Your task to perform on an android device: Clear the cart on target. Search for apple airpods on target, select the first entry, and add it to the cart. Image 0: 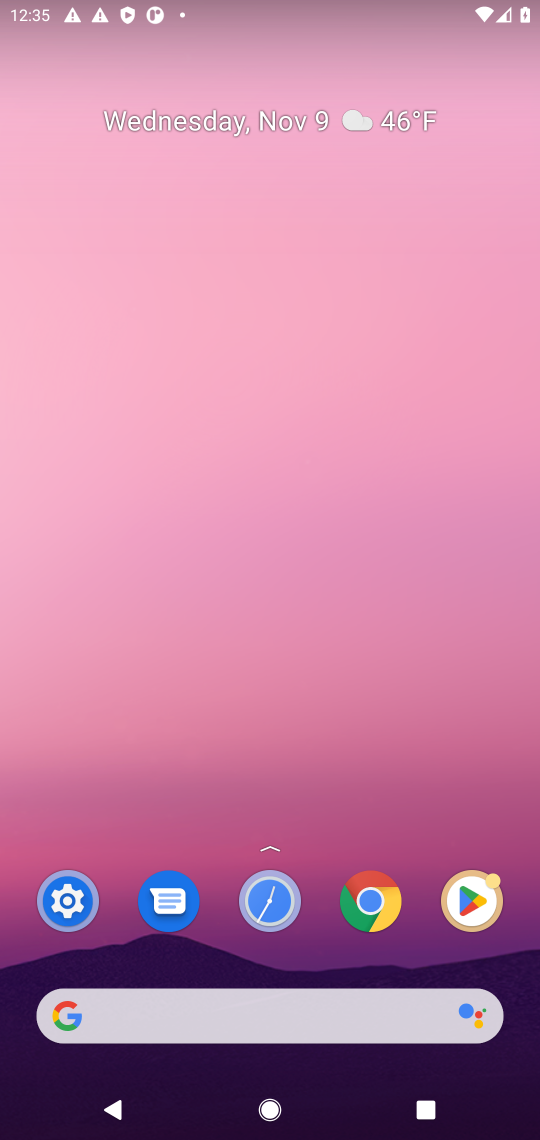
Step 0: click (372, 903)
Your task to perform on an android device: Clear the cart on target. Search for apple airpods on target, select the first entry, and add it to the cart. Image 1: 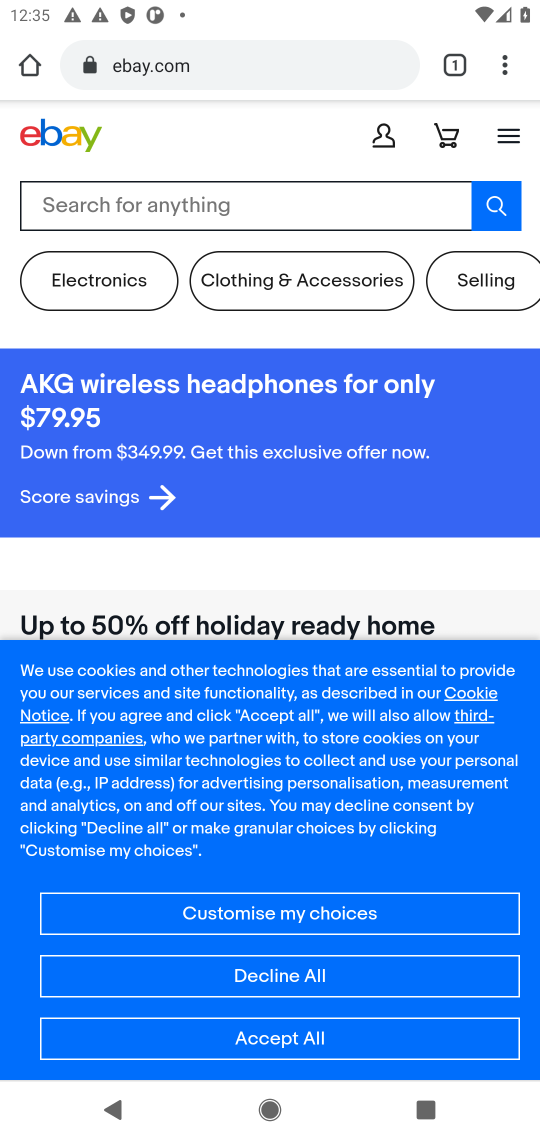
Step 1: click (240, 64)
Your task to perform on an android device: Clear the cart on target. Search for apple airpods on target, select the first entry, and add it to the cart. Image 2: 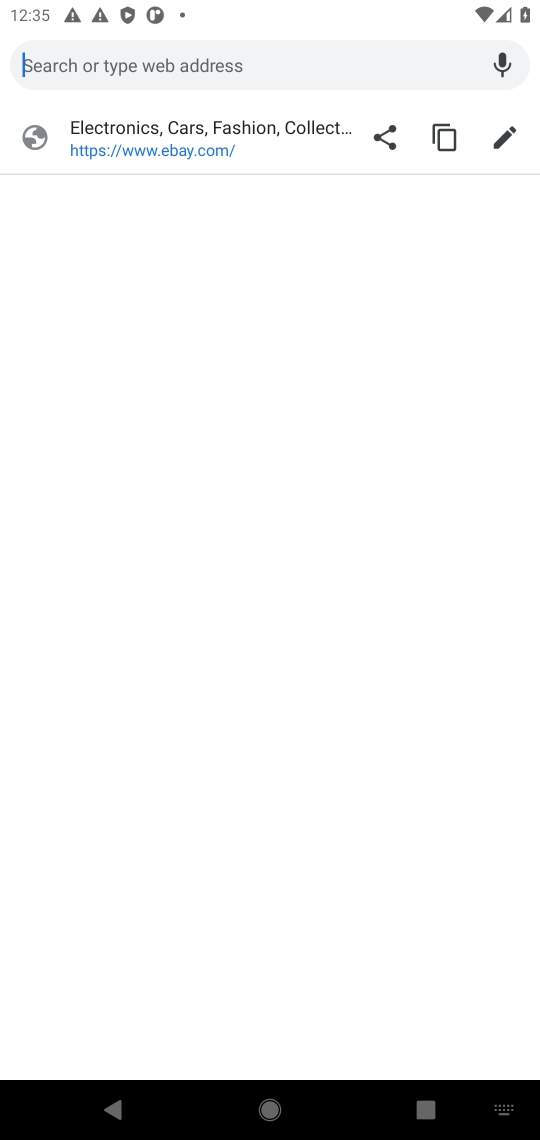
Step 2: type "target"
Your task to perform on an android device: Clear the cart on target. Search for apple airpods on target, select the first entry, and add it to the cart. Image 3: 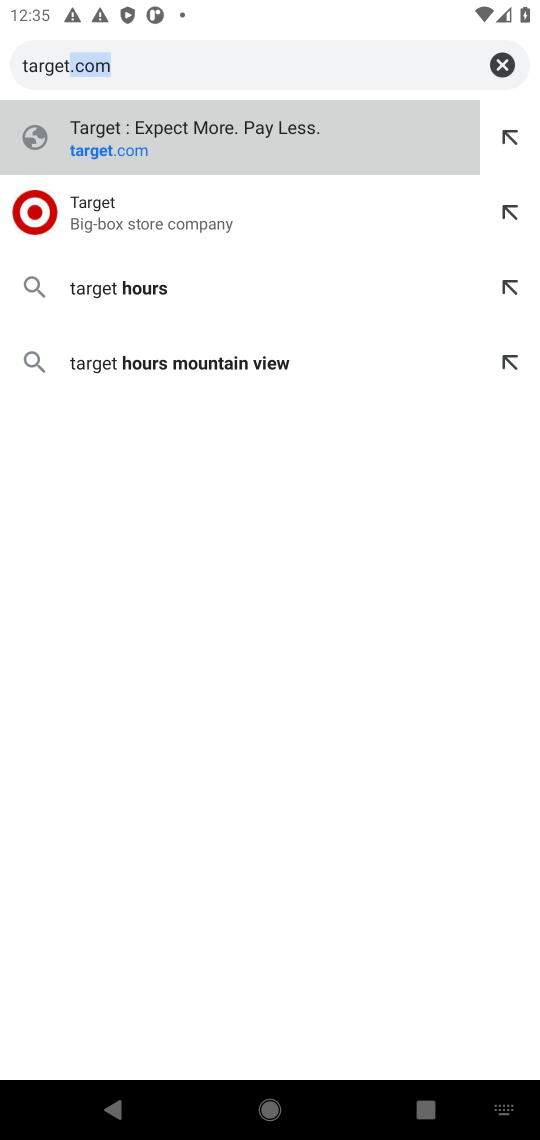
Step 3: click (163, 226)
Your task to perform on an android device: Clear the cart on target. Search for apple airpods on target, select the first entry, and add it to the cart. Image 4: 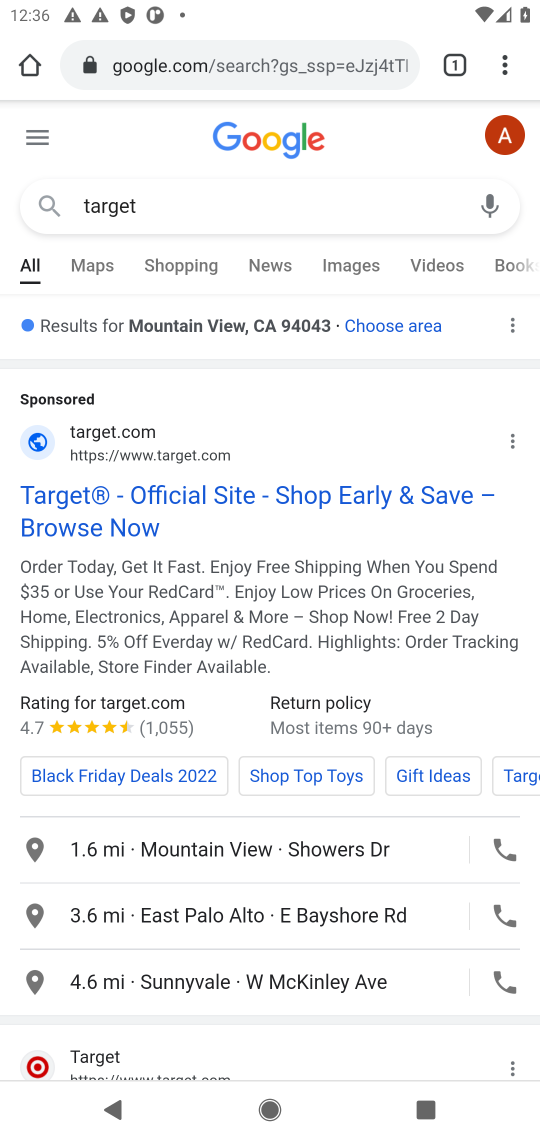
Step 4: click (202, 452)
Your task to perform on an android device: Clear the cart on target. Search for apple airpods on target, select the first entry, and add it to the cart. Image 5: 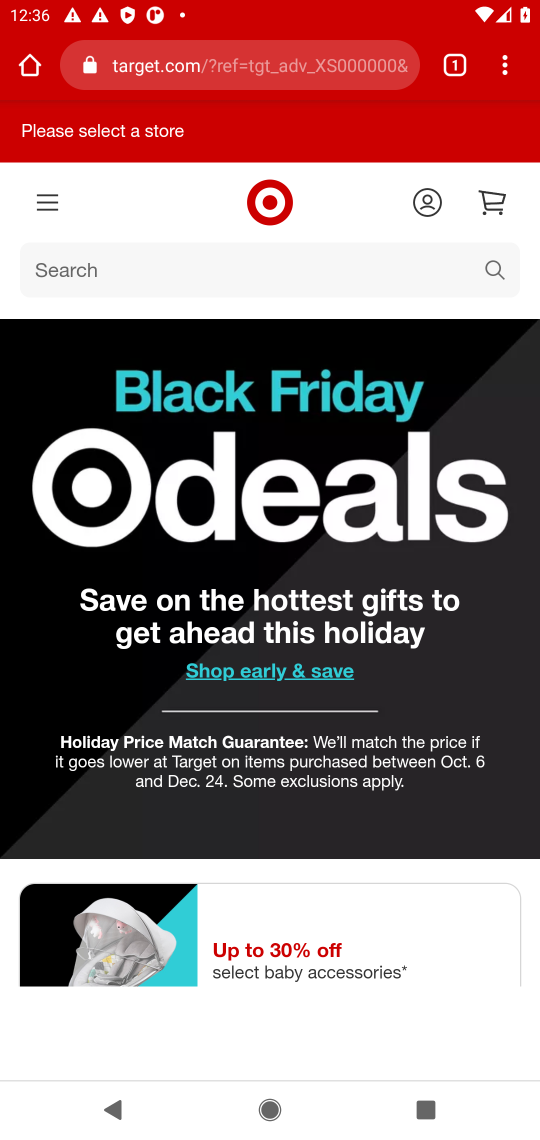
Step 5: click (372, 276)
Your task to perform on an android device: Clear the cart on target. Search for apple airpods on target, select the first entry, and add it to the cart. Image 6: 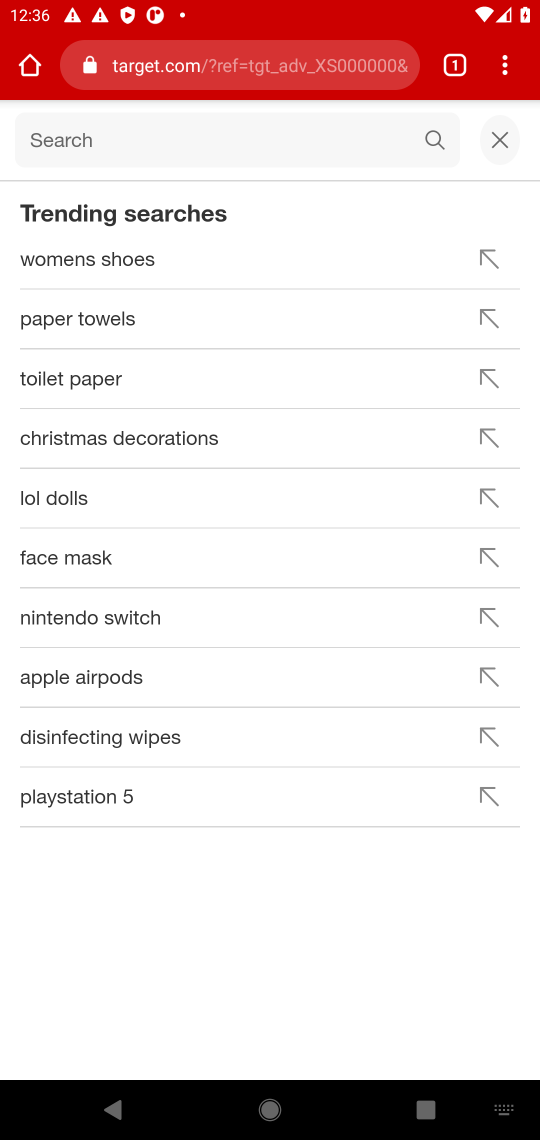
Step 6: type "apple airpods "
Your task to perform on an android device: Clear the cart on target. Search for apple airpods on target, select the first entry, and add it to the cart. Image 7: 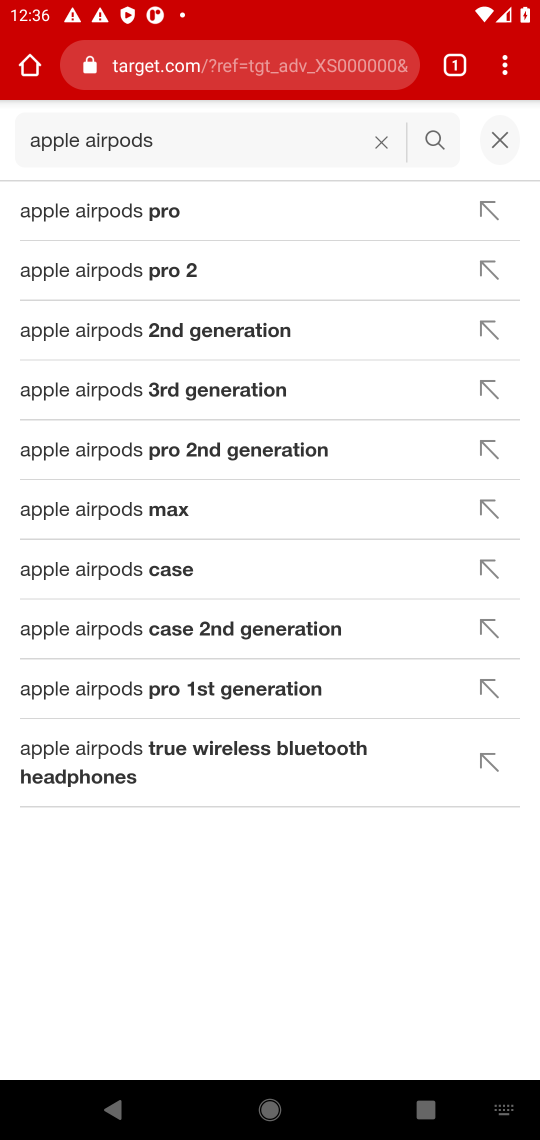
Step 7: click (156, 207)
Your task to perform on an android device: Clear the cart on target. Search for apple airpods on target, select the first entry, and add it to the cart. Image 8: 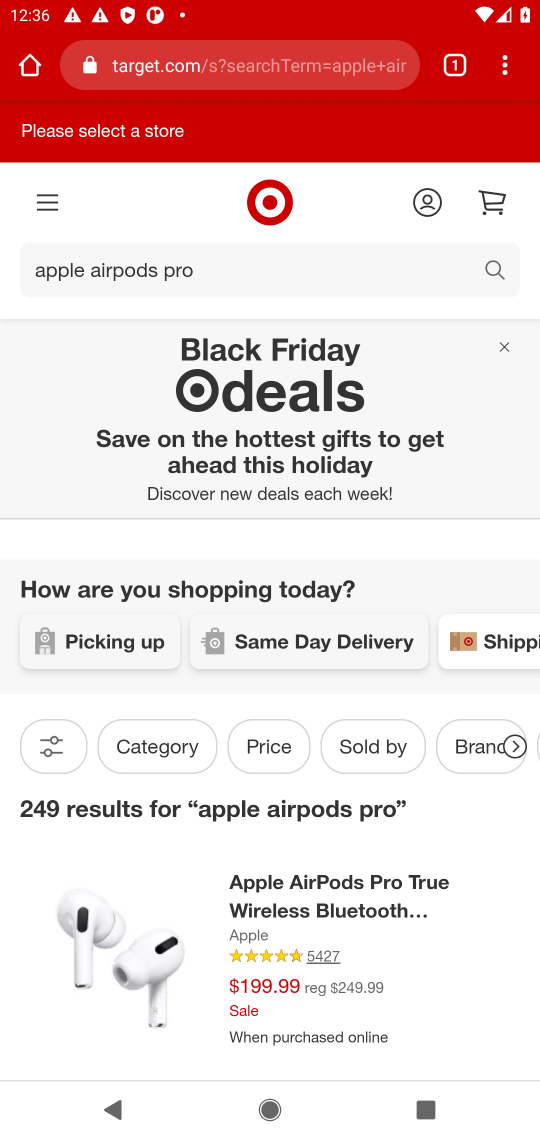
Step 8: click (374, 890)
Your task to perform on an android device: Clear the cart on target. Search for apple airpods on target, select the first entry, and add it to the cart. Image 9: 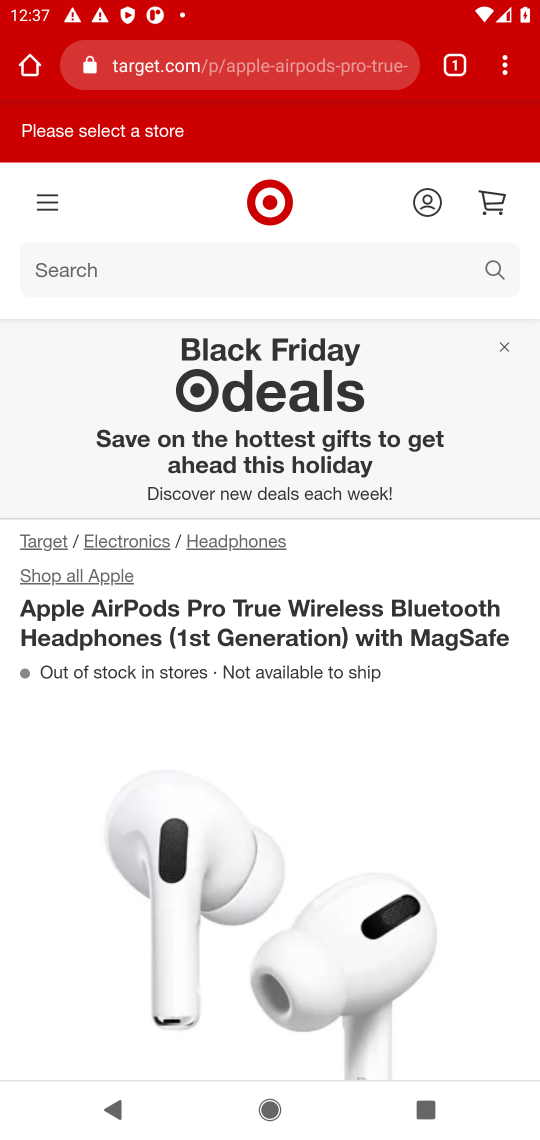
Step 9: drag from (513, 1018) to (472, 268)
Your task to perform on an android device: Clear the cart on target. Search for apple airpods on target, select the first entry, and add it to the cart. Image 10: 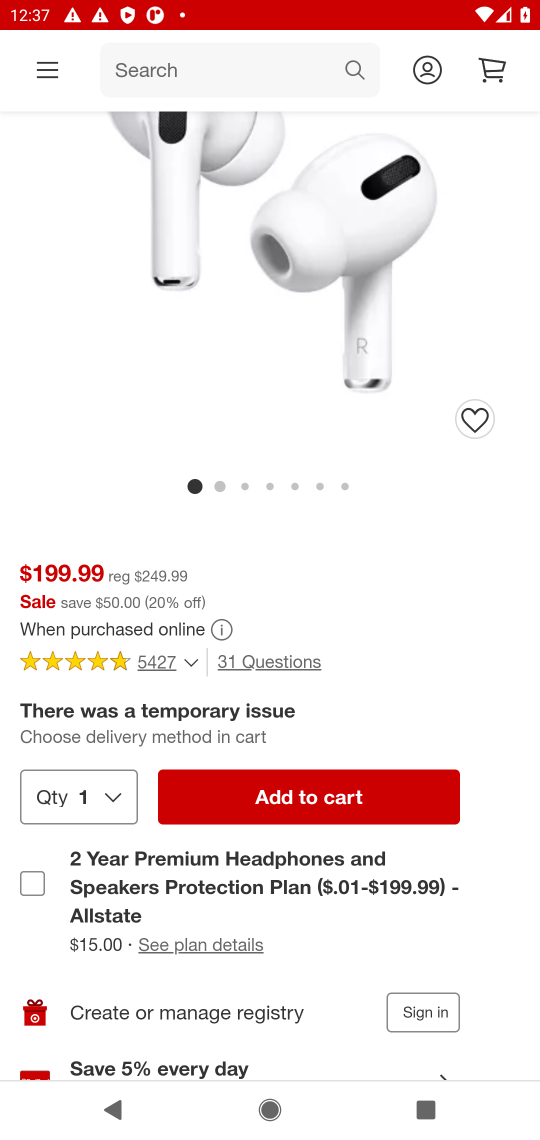
Step 10: click (393, 792)
Your task to perform on an android device: Clear the cart on target. Search for apple airpods on target, select the first entry, and add it to the cart. Image 11: 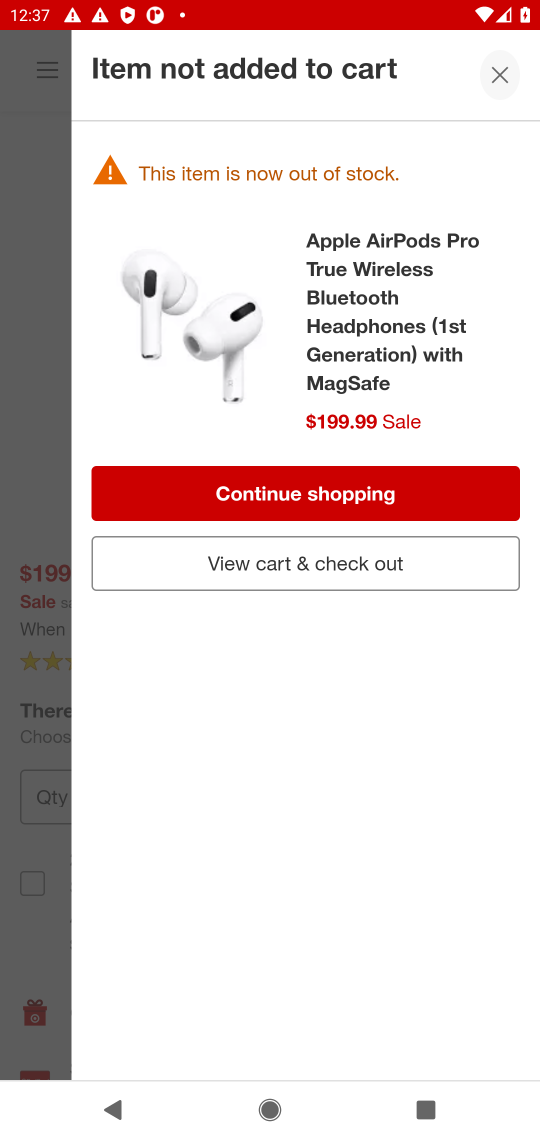
Step 11: task complete